Your task to perform on an android device: check data usage Image 0: 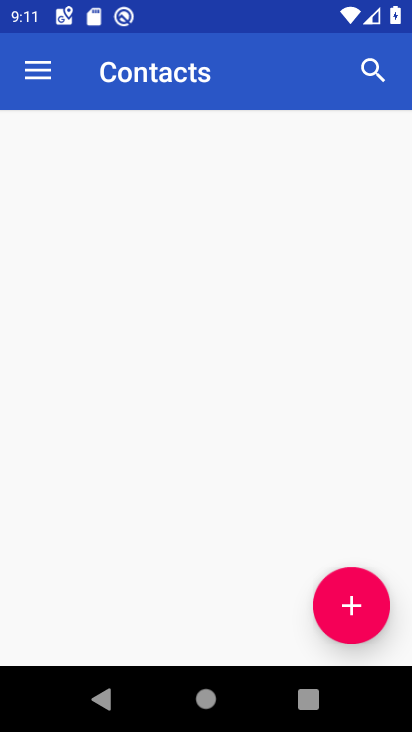
Step 0: press back button
Your task to perform on an android device: check data usage Image 1: 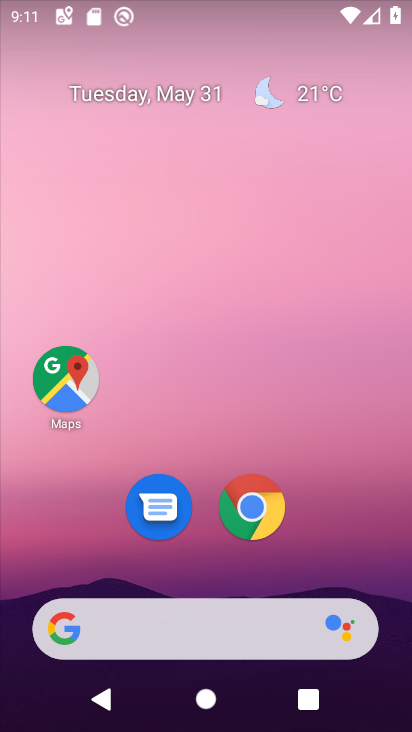
Step 1: drag from (266, 689) to (142, 113)
Your task to perform on an android device: check data usage Image 2: 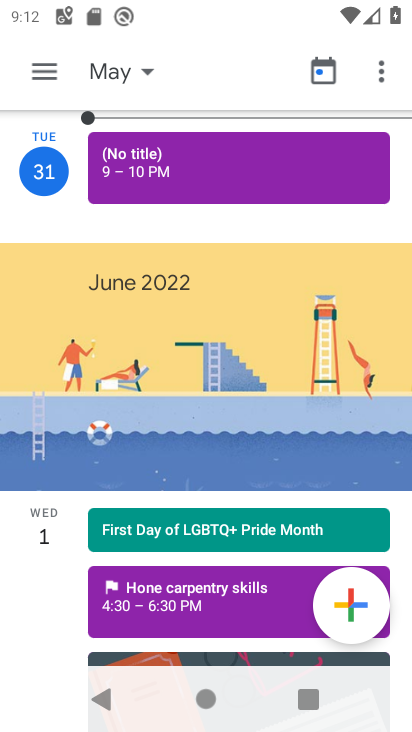
Step 2: press back button
Your task to perform on an android device: check data usage Image 3: 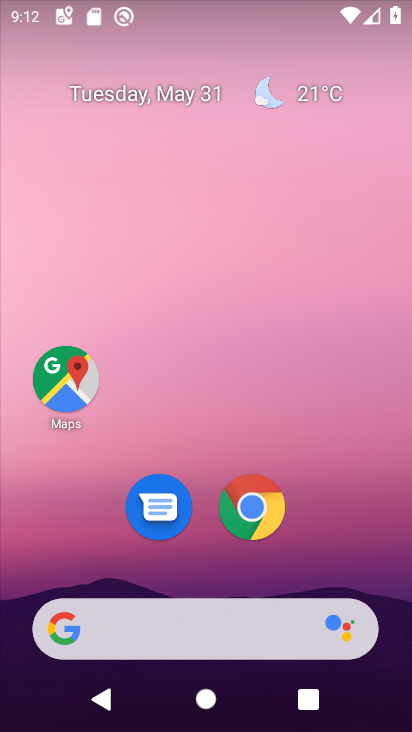
Step 3: drag from (265, 606) to (198, 26)
Your task to perform on an android device: check data usage Image 4: 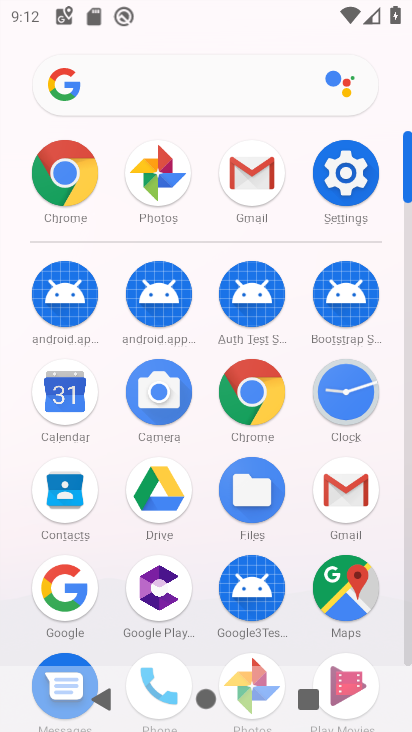
Step 4: click (348, 174)
Your task to perform on an android device: check data usage Image 5: 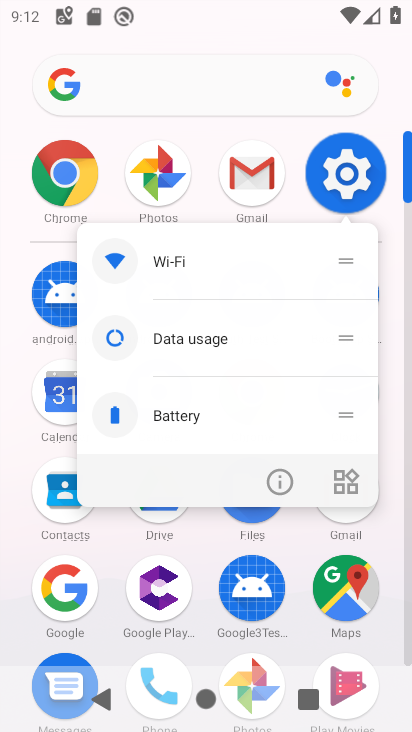
Step 5: click (350, 173)
Your task to perform on an android device: check data usage Image 6: 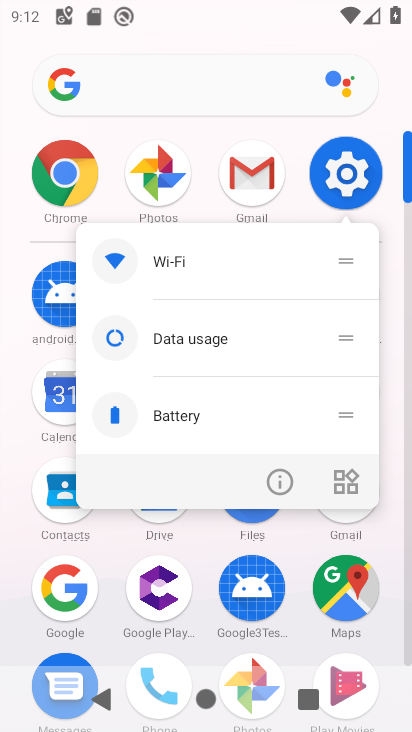
Step 6: click (352, 172)
Your task to perform on an android device: check data usage Image 7: 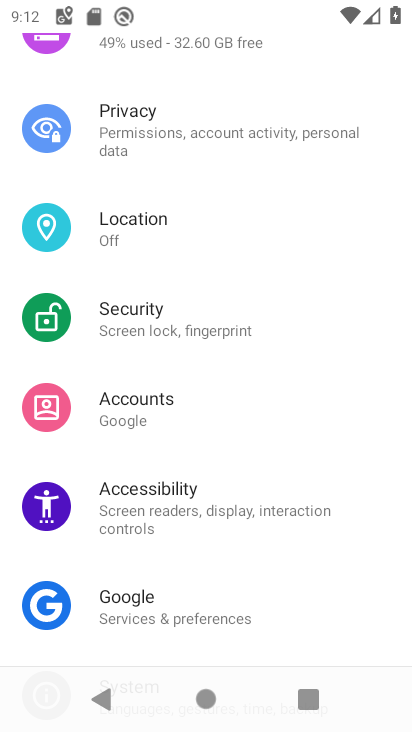
Step 7: drag from (188, 152) to (224, 539)
Your task to perform on an android device: check data usage Image 8: 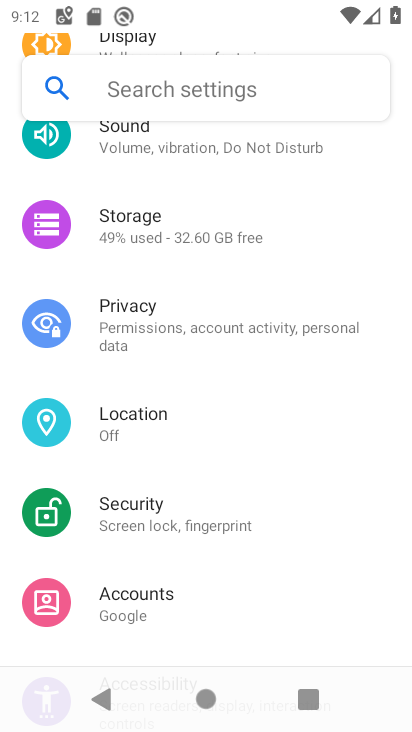
Step 8: drag from (241, 239) to (262, 585)
Your task to perform on an android device: check data usage Image 9: 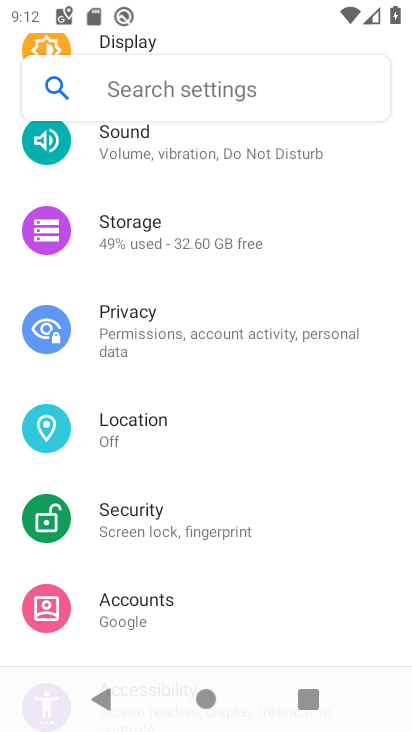
Step 9: drag from (165, 162) to (244, 646)
Your task to perform on an android device: check data usage Image 10: 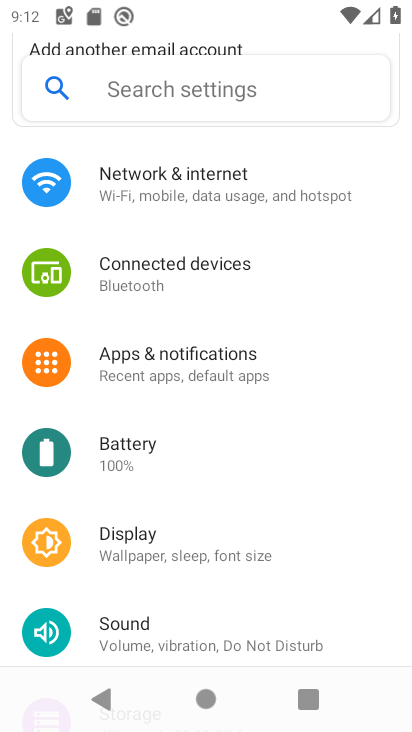
Step 10: drag from (297, 292) to (294, 672)
Your task to perform on an android device: check data usage Image 11: 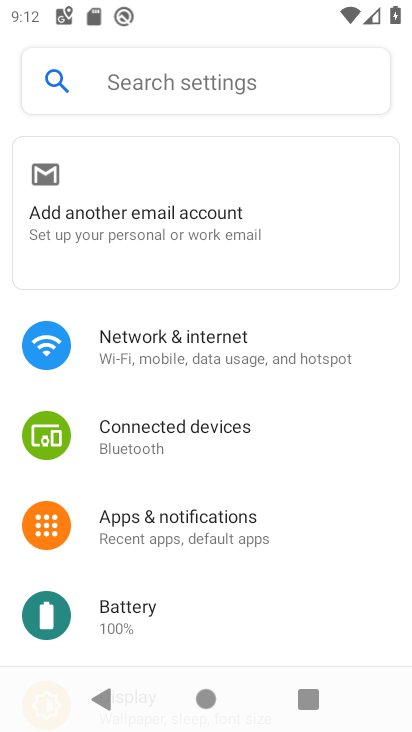
Step 11: click (200, 344)
Your task to perform on an android device: check data usage Image 12: 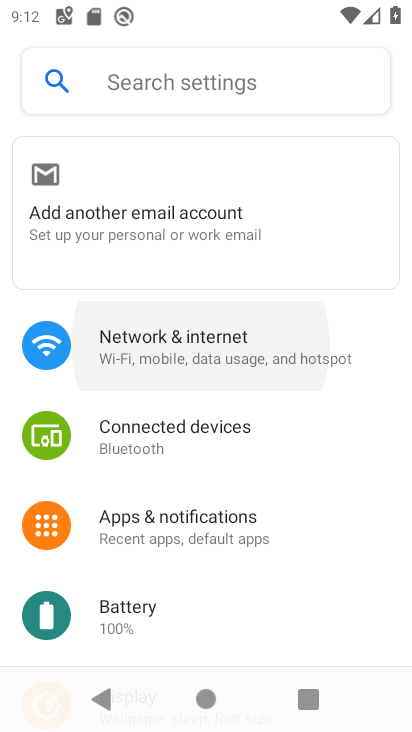
Step 12: click (200, 344)
Your task to perform on an android device: check data usage Image 13: 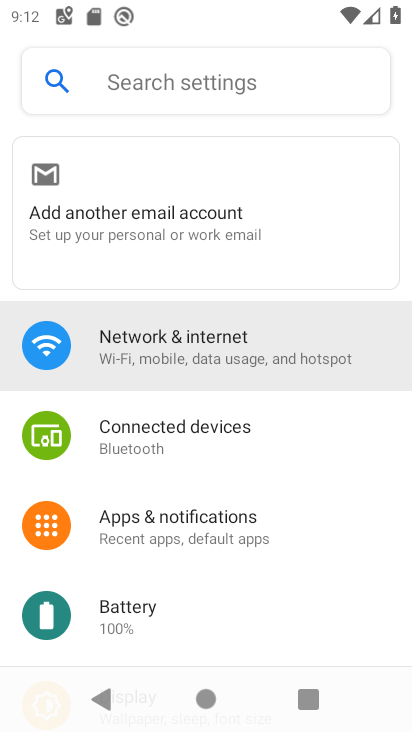
Step 13: click (200, 344)
Your task to perform on an android device: check data usage Image 14: 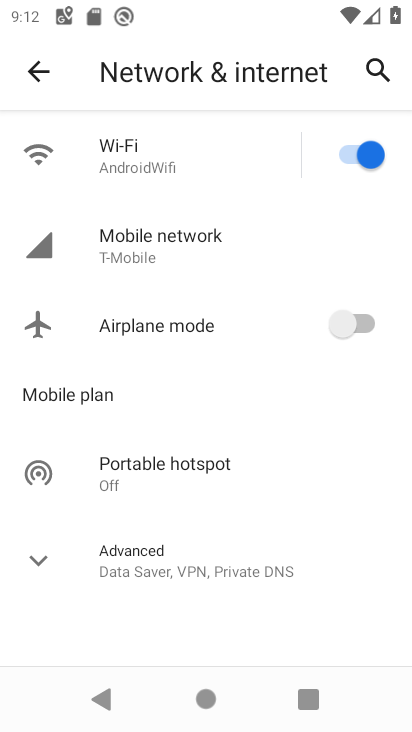
Step 14: task complete